Your task to perform on an android device: change the clock display to digital Image 0: 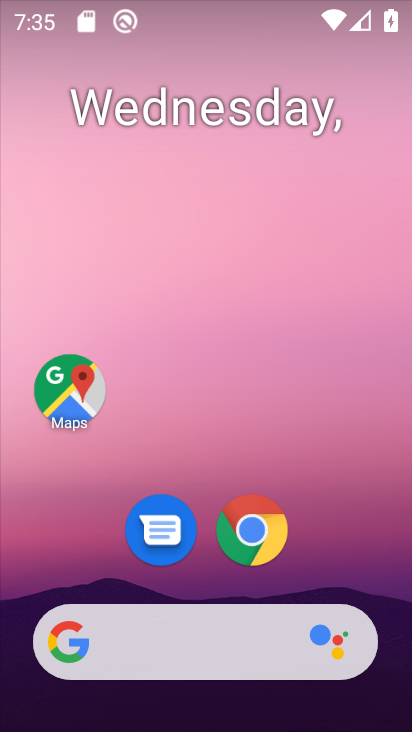
Step 0: drag from (399, 637) to (275, 73)
Your task to perform on an android device: change the clock display to digital Image 1: 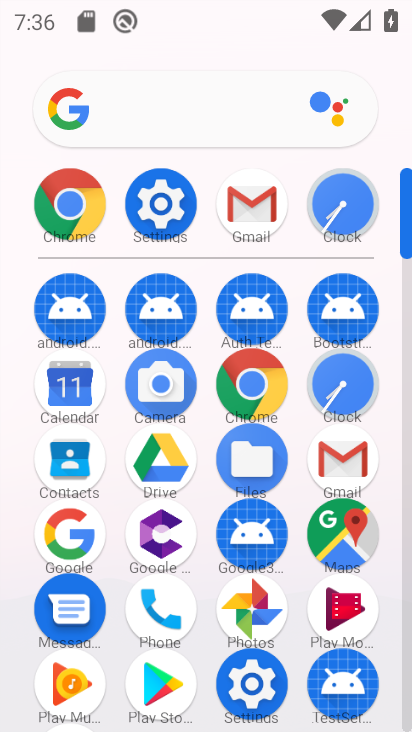
Step 1: click (343, 212)
Your task to perform on an android device: change the clock display to digital Image 2: 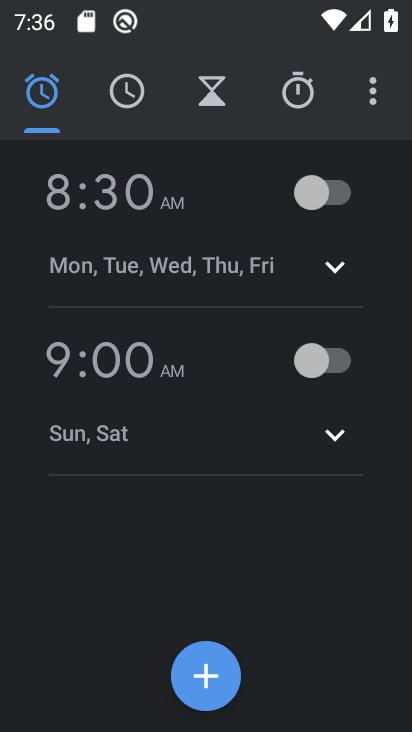
Step 2: click (384, 90)
Your task to perform on an android device: change the clock display to digital Image 3: 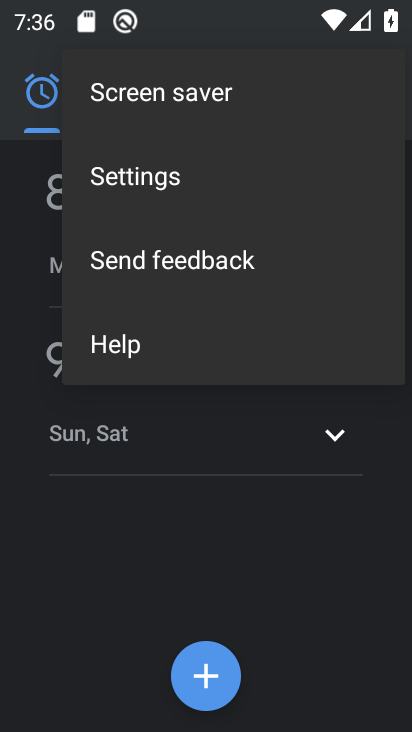
Step 3: click (166, 178)
Your task to perform on an android device: change the clock display to digital Image 4: 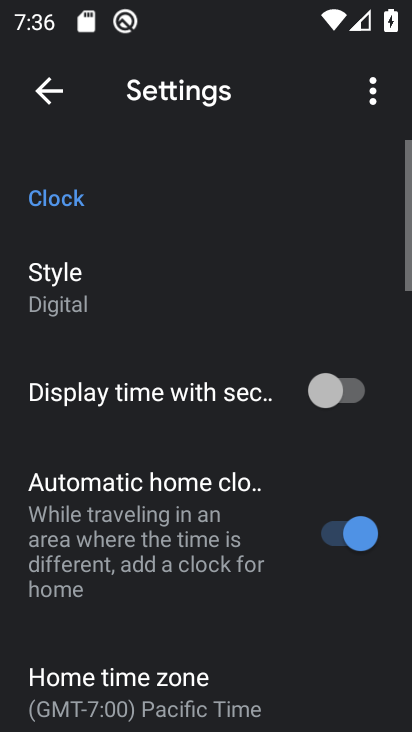
Step 4: click (148, 308)
Your task to perform on an android device: change the clock display to digital Image 5: 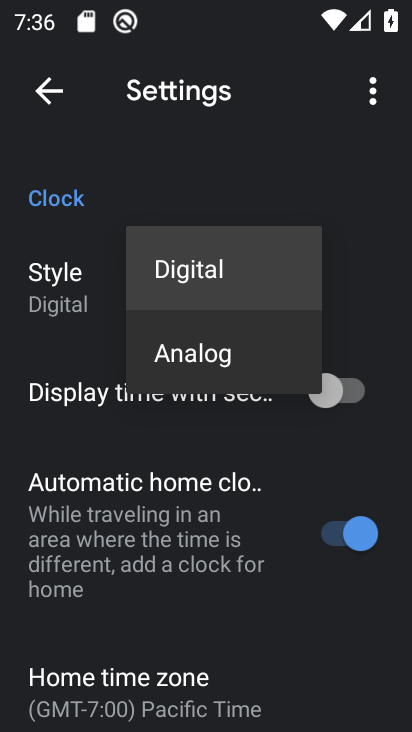
Step 5: click (236, 274)
Your task to perform on an android device: change the clock display to digital Image 6: 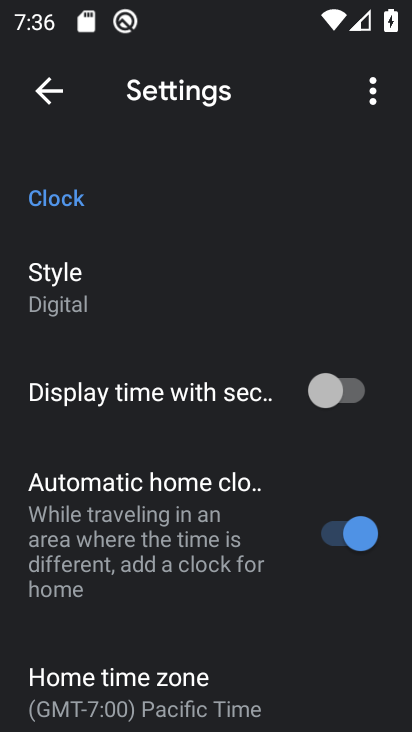
Step 6: task complete